Your task to perform on an android device: Search for seafood restaurants on Google Maps Image 0: 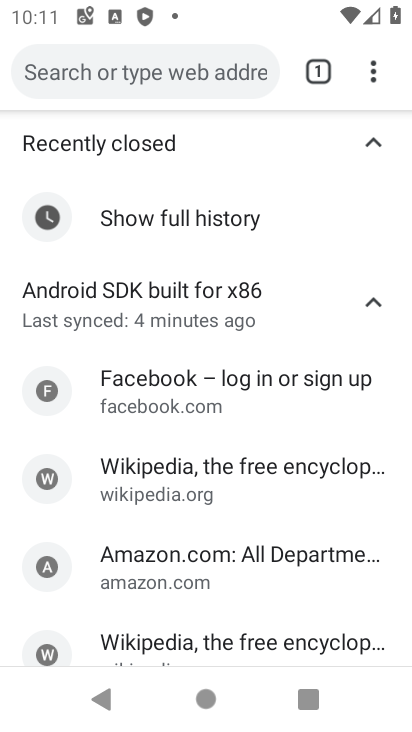
Step 0: press home button
Your task to perform on an android device: Search for seafood restaurants on Google Maps Image 1: 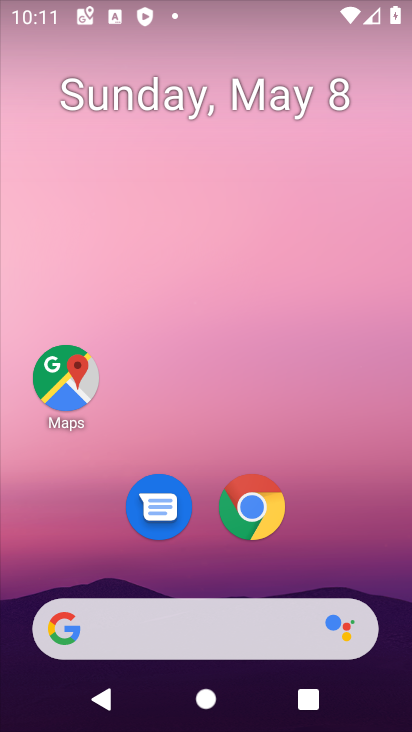
Step 1: click (61, 385)
Your task to perform on an android device: Search for seafood restaurants on Google Maps Image 2: 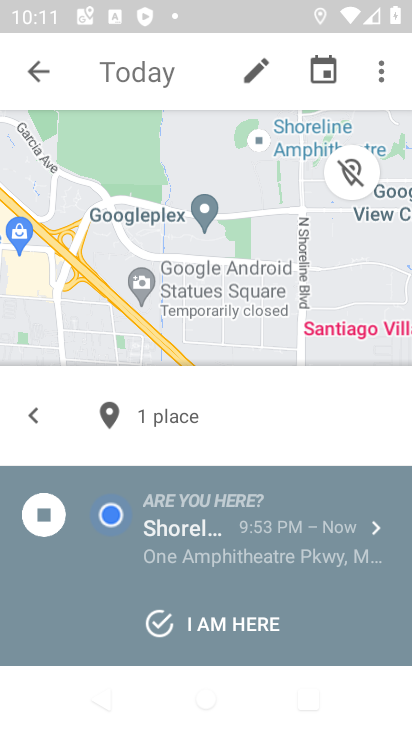
Step 2: click (41, 77)
Your task to perform on an android device: Search for seafood restaurants on Google Maps Image 3: 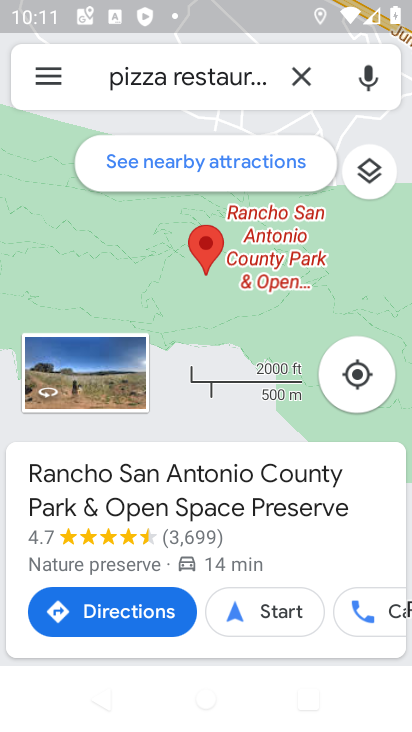
Step 3: click (296, 67)
Your task to perform on an android device: Search for seafood restaurants on Google Maps Image 4: 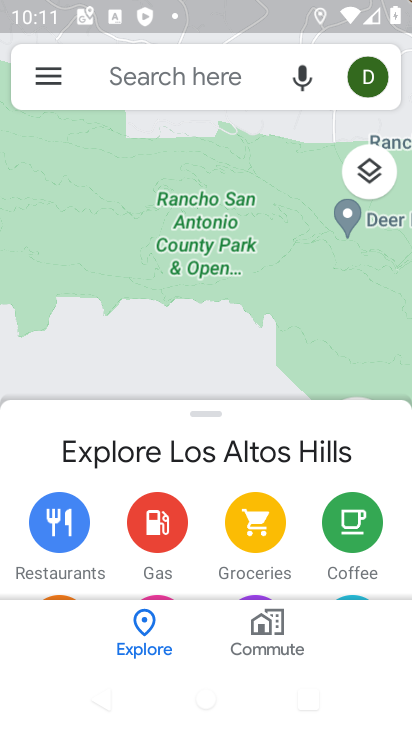
Step 4: click (192, 76)
Your task to perform on an android device: Search for seafood restaurants on Google Maps Image 5: 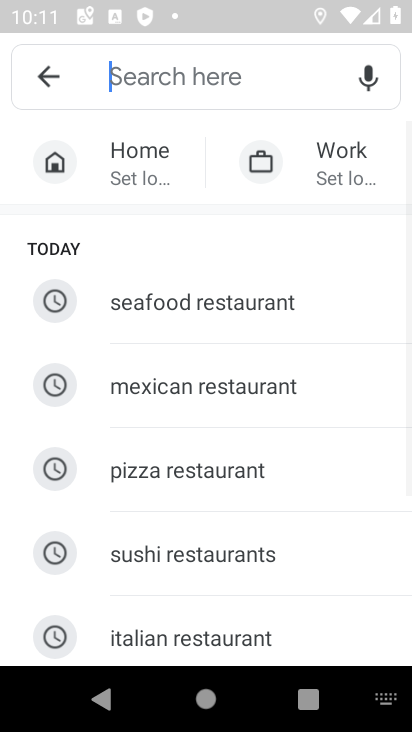
Step 5: click (184, 299)
Your task to perform on an android device: Search for seafood restaurants on Google Maps Image 6: 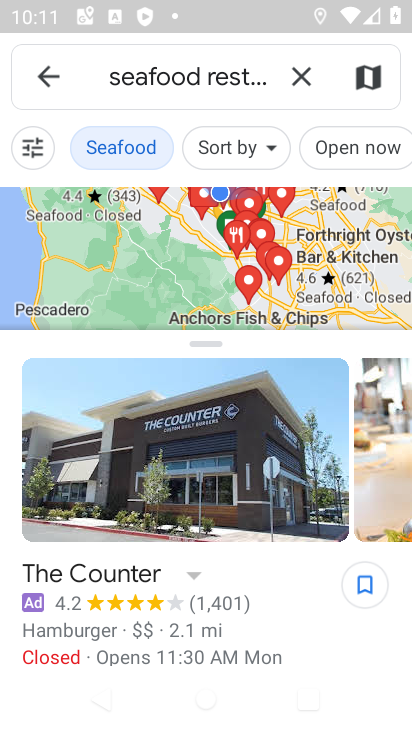
Step 6: task complete